Your task to perform on an android device: Open Google Chrome and open the bookmarks view Image 0: 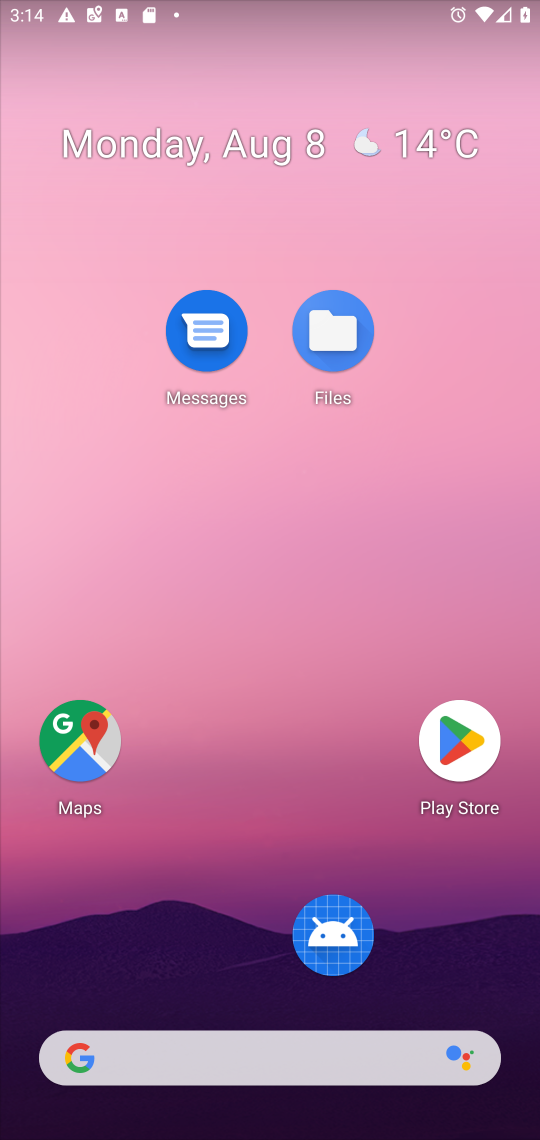
Step 0: drag from (288, 1077) to (278, 143)
Your task to perform on an android device: Open Google Chrome and open the bookmarks view Image 1: 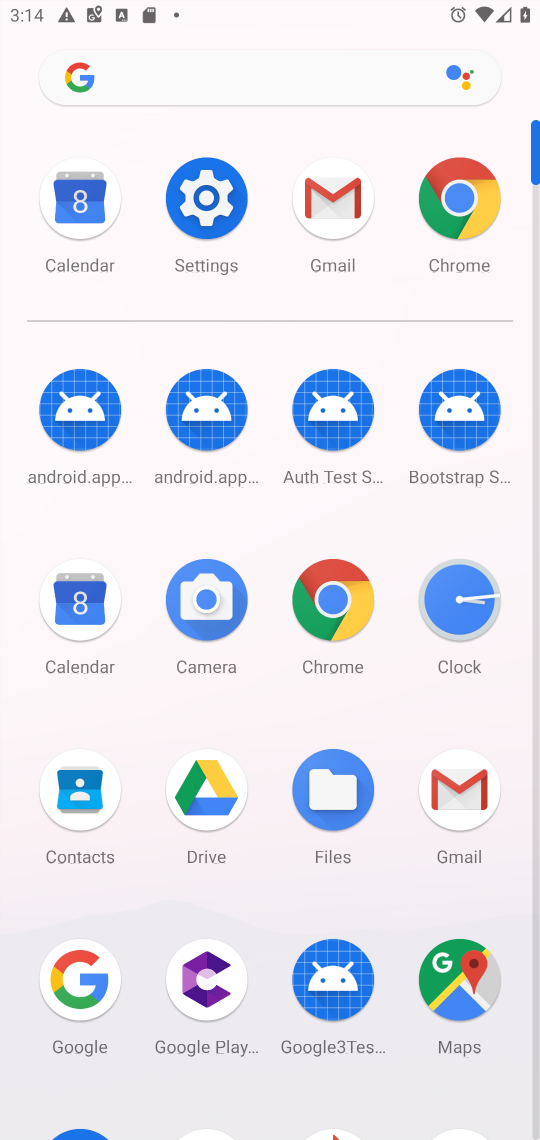
Step 1: click (334, 596)
Your task to perform on an android device: Open Google Chrome and open the bookmarks view Image 2: 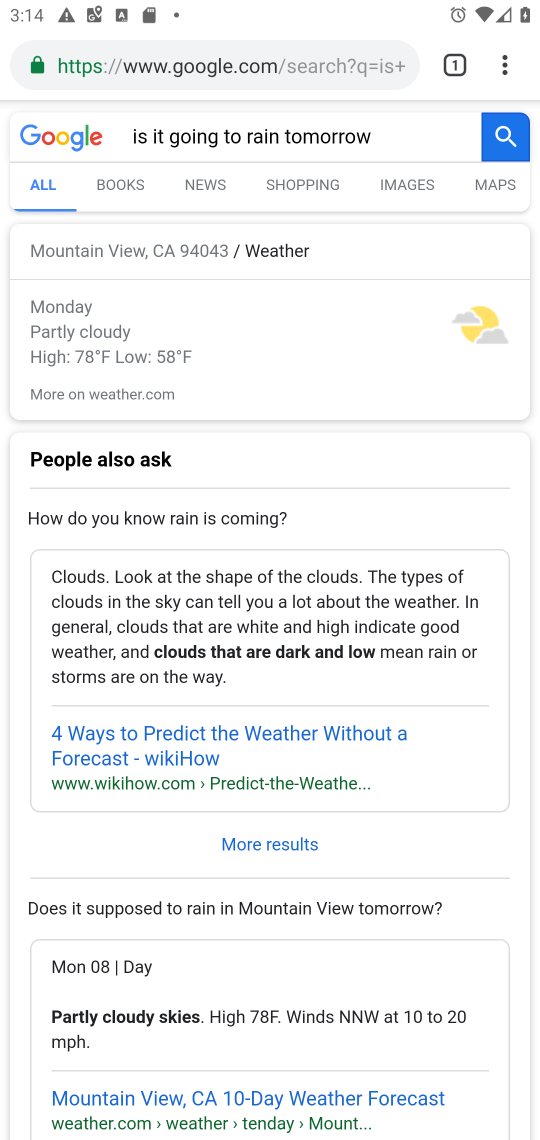
Step 2: click (505, 63)
Your task to perform on an android device: Open Google Chrome and open the bookmarks view Image 3: 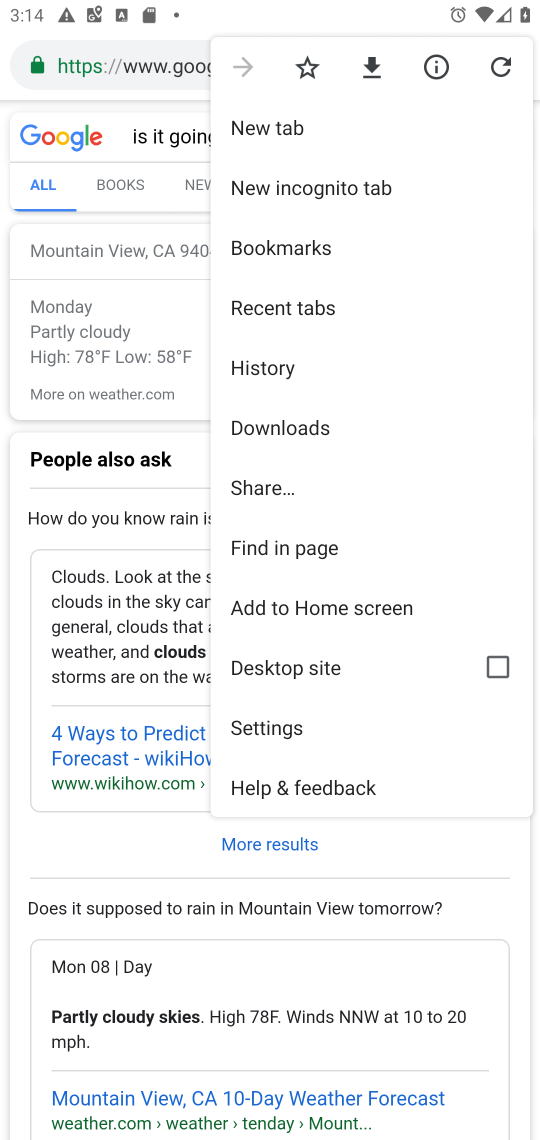
Step 3: click (310, 242)
Your task to perform on an android device: Open Google Chrome and open the bookmarks view Image 4: 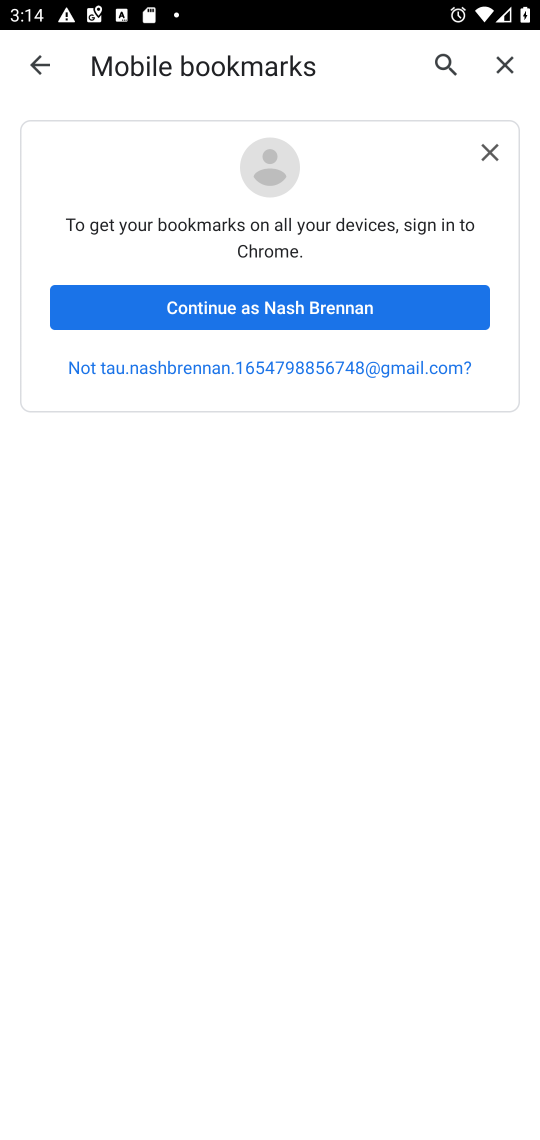
Step 4: task complete